Your task to perform on an android device: search for starred emails in the gmail app Image 0: 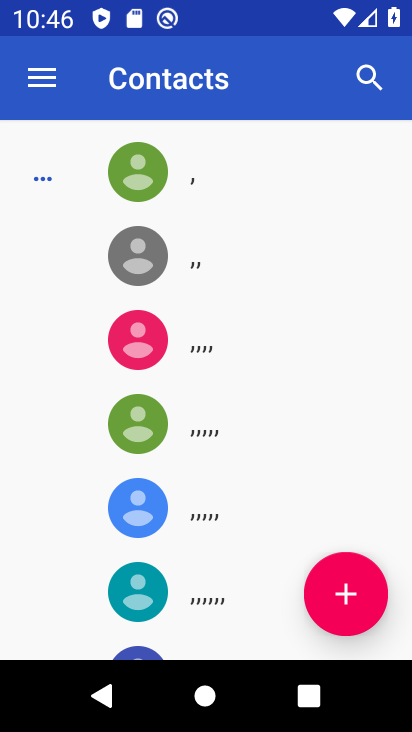
Step 0: press home button
Your task to perform on an android device: search for starred emails in the gmail app Image 1: 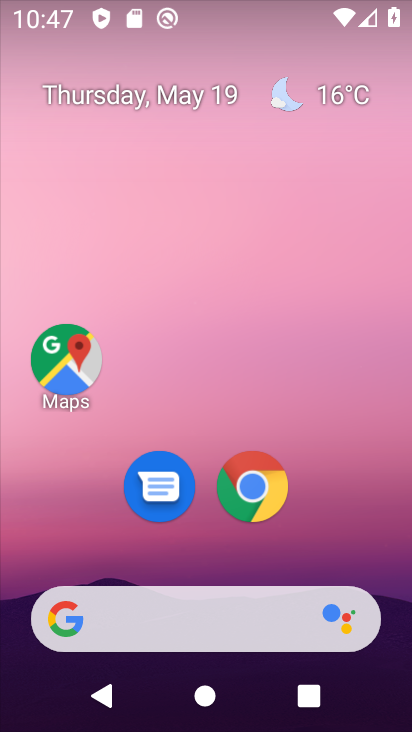
Step 1: drag from (368, 497) to (339, 105)
Your task to perform on an android device: search for starred emails in the gmail app Image 2: 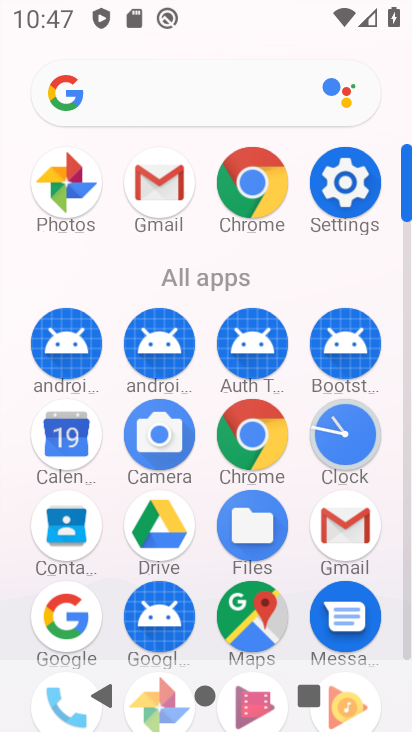
Step 2: click (137, 214)
Your task to perform on an android device: search for starred emails in the gmail app Image 3: 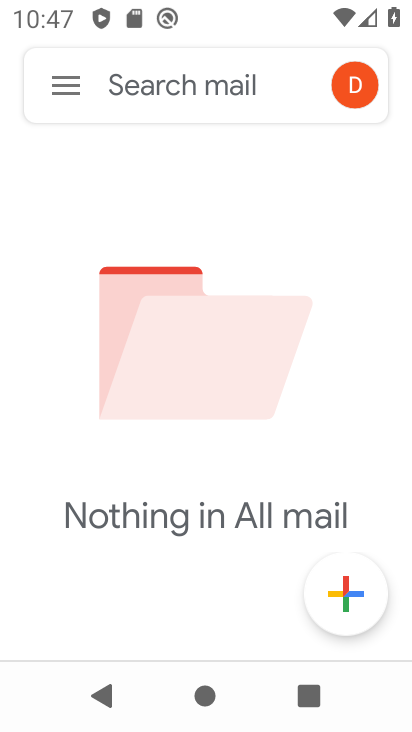
Step 3: click (59, 85)
Your task to perform on an android device: search for starred emails in the gmail app Image 4: 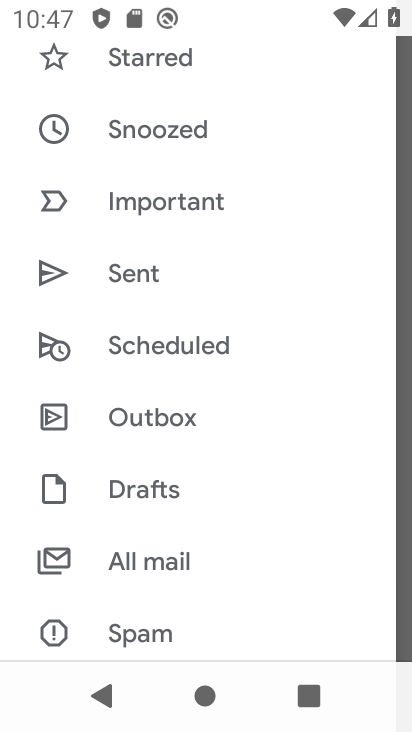
Step 4: click (141, 564)
Your task to perform on an android device: search for starred emails in the gmail app Image 5: 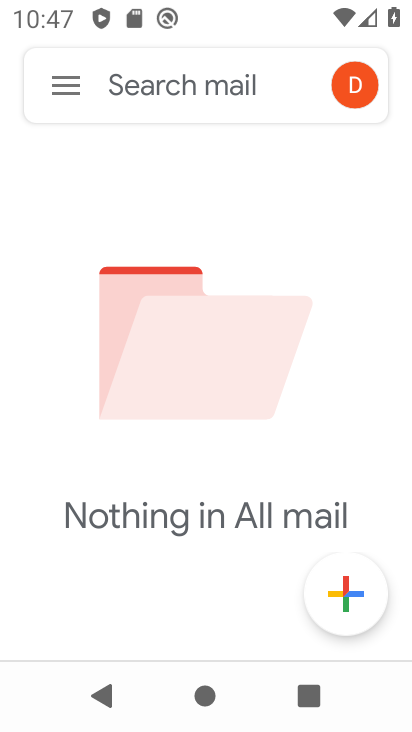
Step 5: task complete